Your task to perform on an android device: turn on showing notifications on the lock screen Image 0: 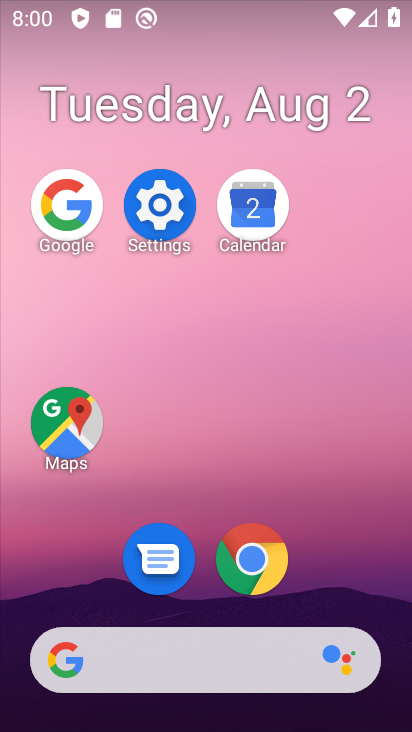
Step 0: drag from (358, 539) to (313, 154)
Your task to perform on an android device: turn on showing notifications on the lock screen Image 1: 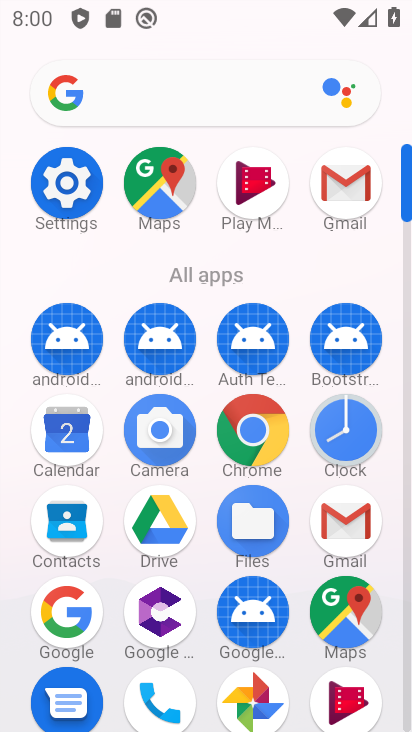
Step 1: drag from (253, 553) to (262, 209)
Your task to perform on an android device: turn on showing notifications on the lock screen Image 2: 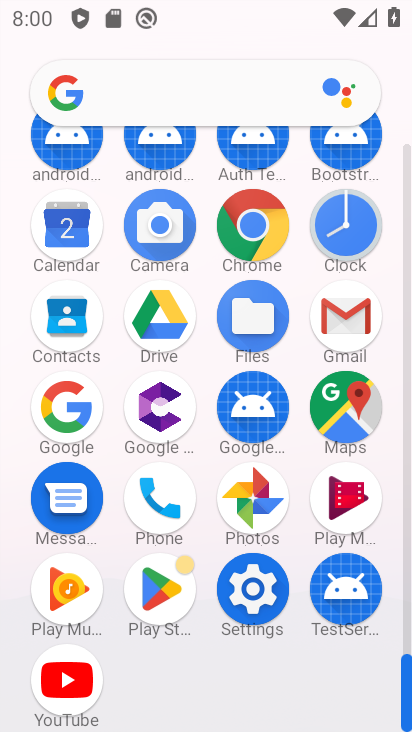
Step 2: click (246, 594)
Your task to perform on an android device: turn on showing notifications on the lock screen Image 3: 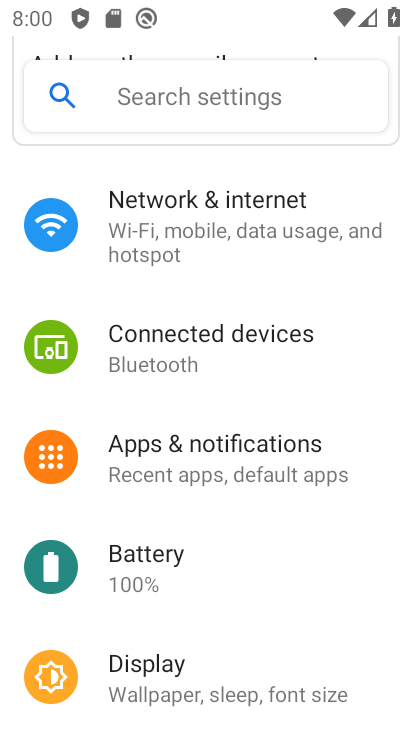
Step 3: click (208, 455)
Your task to perform on an android device: turn on showing notifications on the lock screen Image 4: 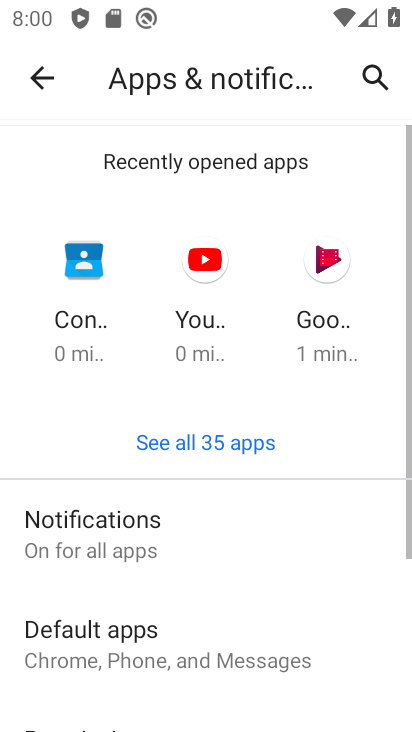
Step 4: click (158, 511)
Your task to perform on an android device: turn on showing notifications on the lock screen Image 5: 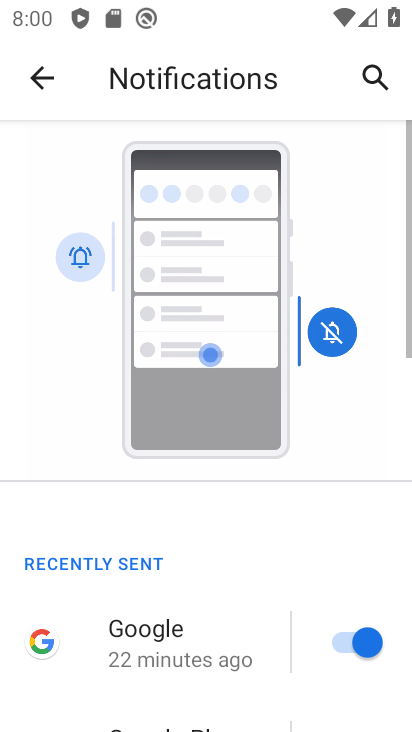
Step 5: drag from (179, 566) to (172, 151)
Your task to perform on an android device: turn on showing notifications on the lock screen Image 6: 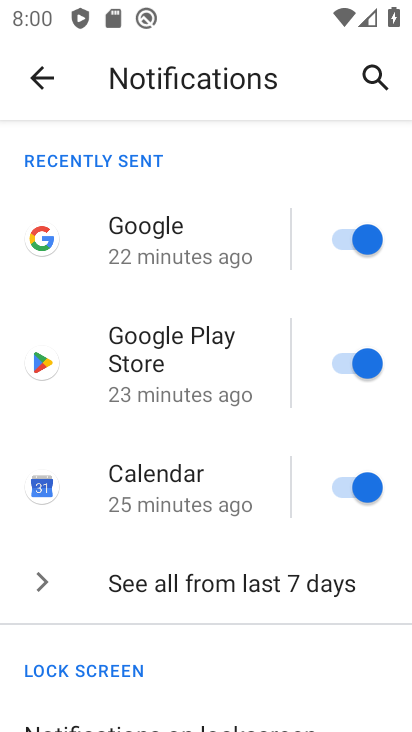
Step 6: drag from (201, 572) to (169, 199)
Your task to perform on an android device: turn on showing notifications on the lock screen Image 7: 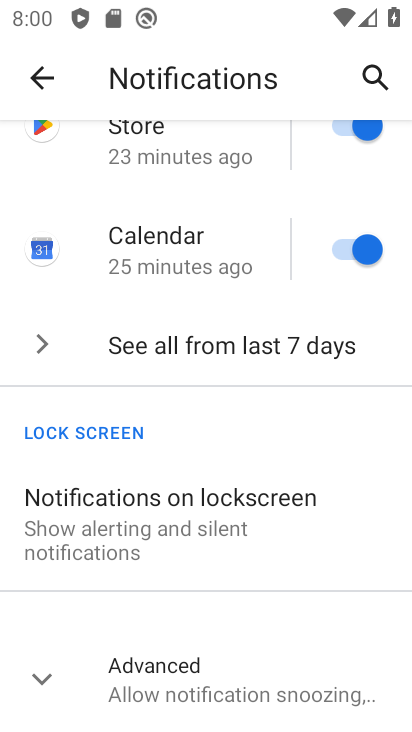
Step 7: click (260, 663)
Your task to perform on an android device: turn on showing notifications on the lock screen Image 8: 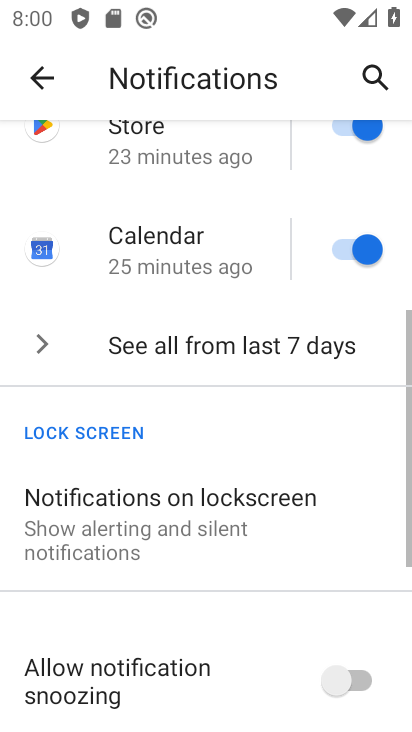
Step 8: drag from (260, 663) to (301, 353)
Your task to perform on an android device: turn on showing notifications on the lock screen Image 9: 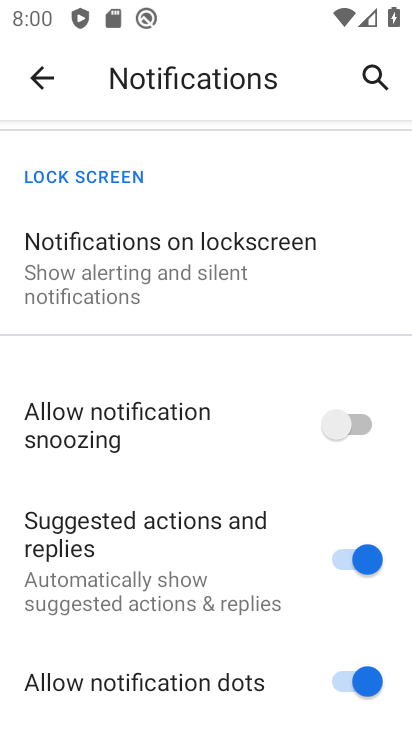
Step 9: click (279, 282)
Your task to perform on an android device: turn on showing notifications on the lock screen Image 10: 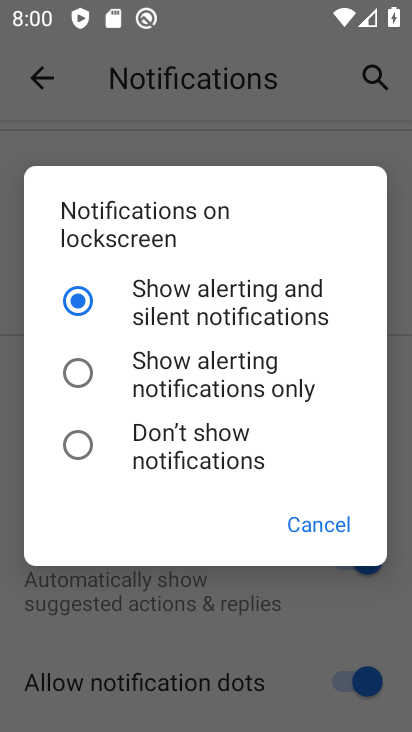
Step 10: click (175, 465)
Your task to perform on an android device: turn on showing notifications on the lock screen Image 11: 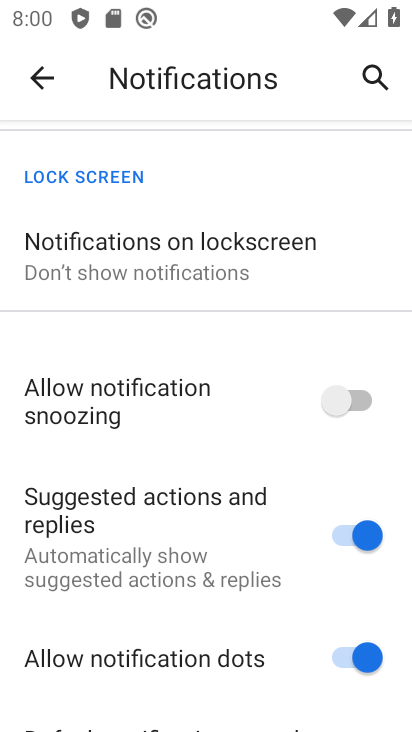
Step 11: task complete